Your task to perform on an android device: Go to sound settings Image 0: 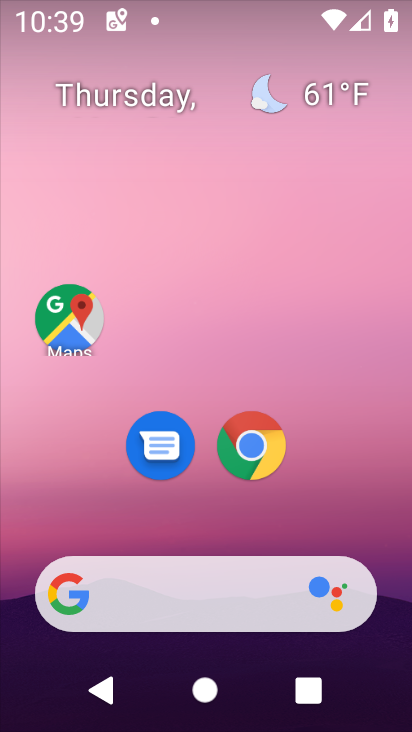
Step 0: drag from (196, 434) to (241, 1)
Your task to perform on an android device: Go to sound settings Image 1: 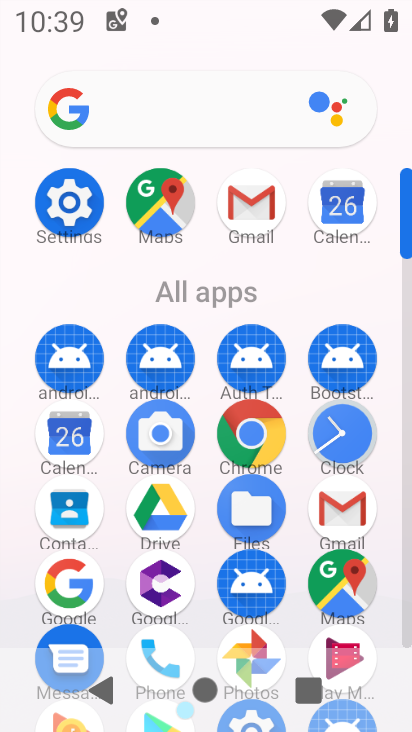
Step 1: click (72, 211)
Your task to perform on an android device: Go to sound settings Image 2: 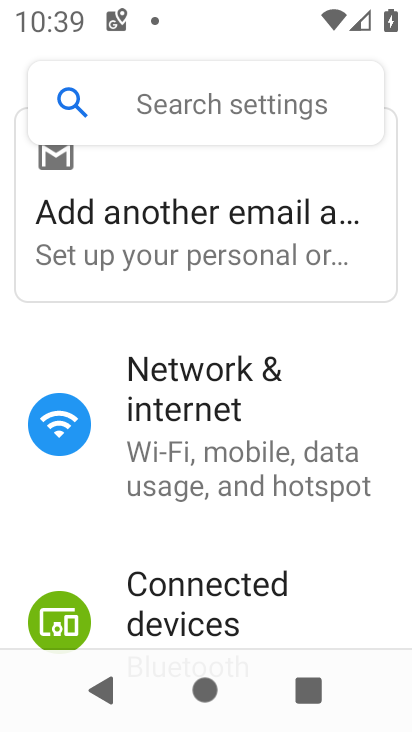
Step 2: drag from (218, 525) to (255, 59)
Your task to perform on an android device: Go to sound settings Image 3: 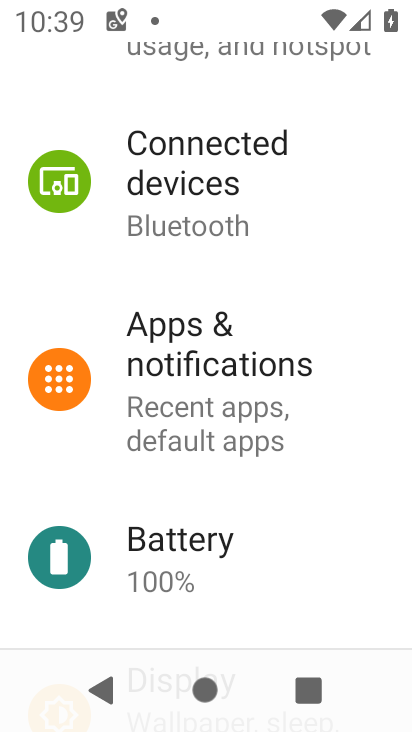
Step 3: drag from (275, 547) to (305, 82)
Your task to perform on an android device: Go to sound settings Image 4: 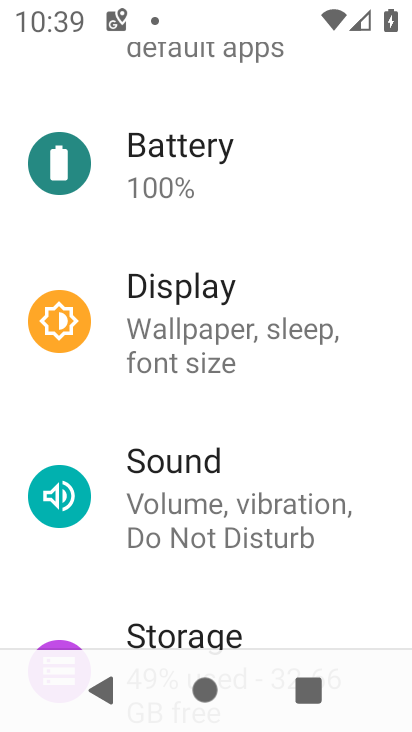
Step 4: click (219, 496)
Your task to perform on an android device: Go to sound settings Image 5: 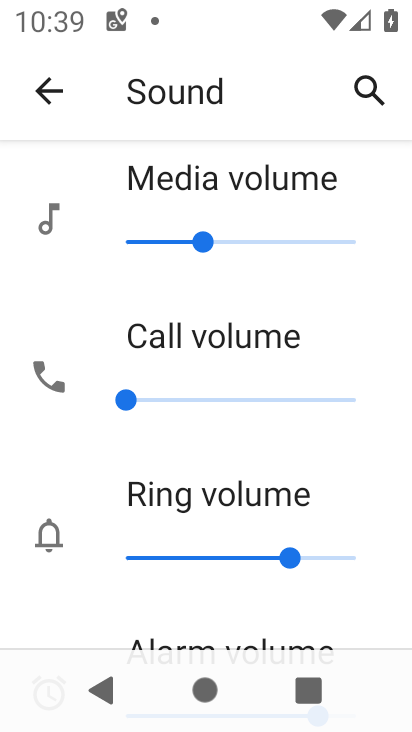
Step 5: task complete